Your task to perform on an android device: Clear the shopping cart on costco. Add "logitech g502" to the cart on costco Image 0: 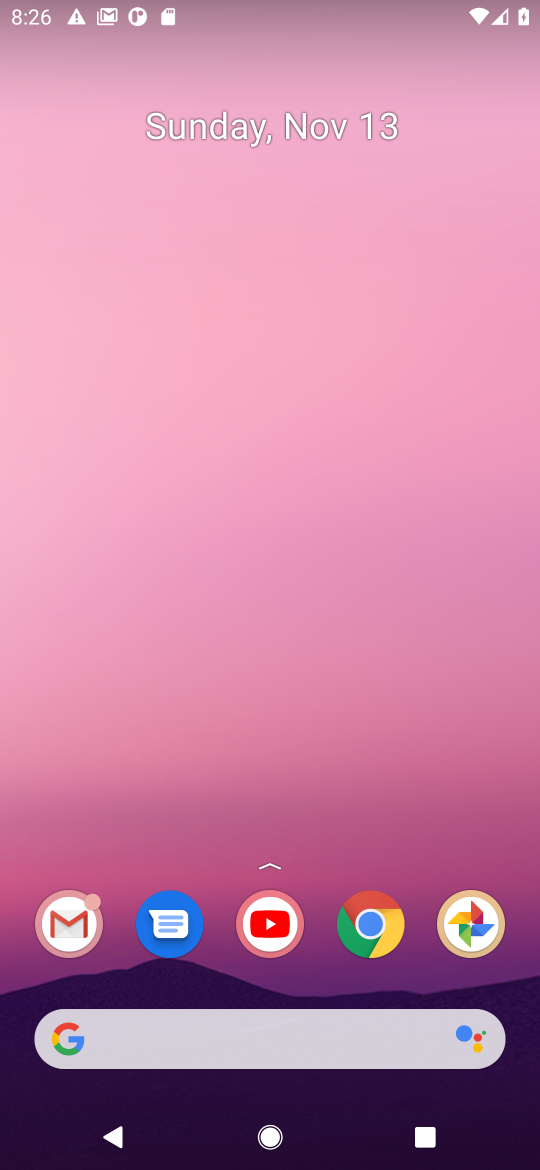
Step 0: click (366, 928)
Your task to perform on an android device: Clear the shopping cart on costco. Add "logitech g502" to the cart on costco Image 1: 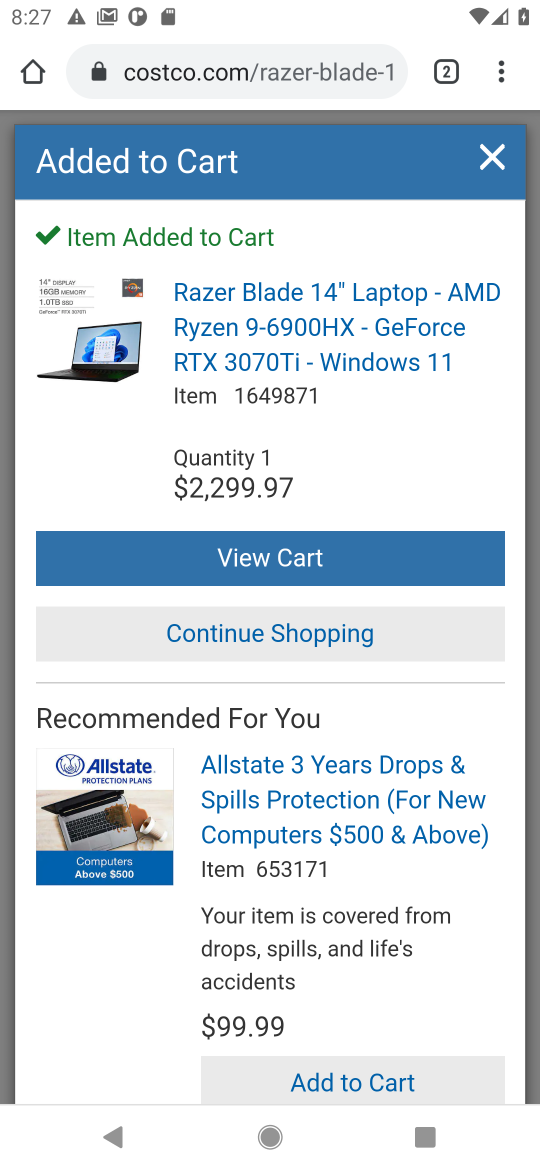
Step 1: click (492, 163)
Your task to perform on an android device: Clear the shopping cart on costco. Add "logitech g502" to the cart on costco Image 2: 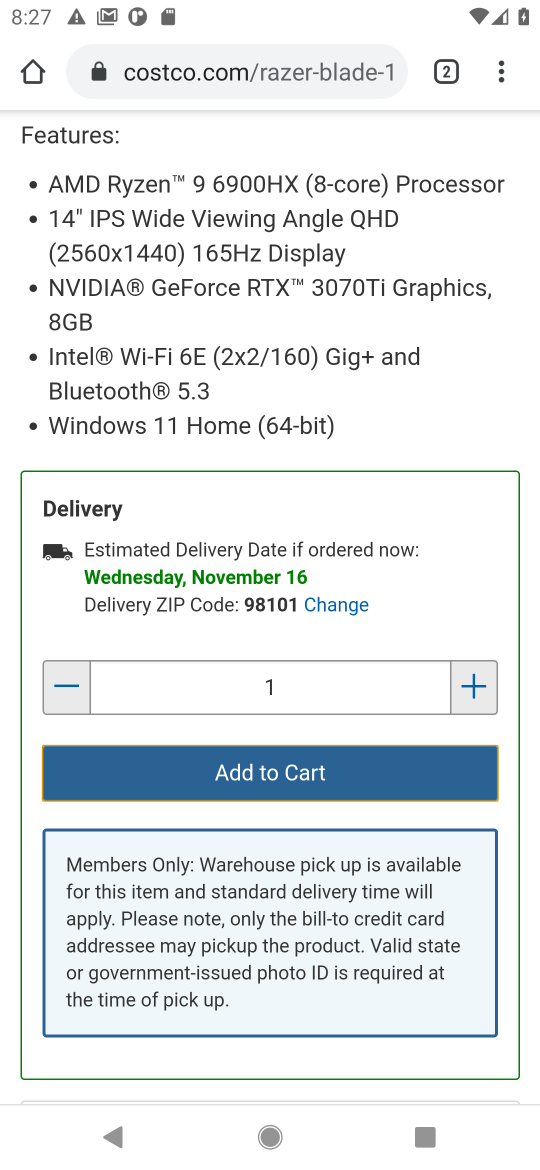
Step 2: drag from (201, 562) to (226, 1012)
Your task to perform on an android device: Clear the shopping cart on costco. Add "logitech g502" to the cart on costco Image 3: 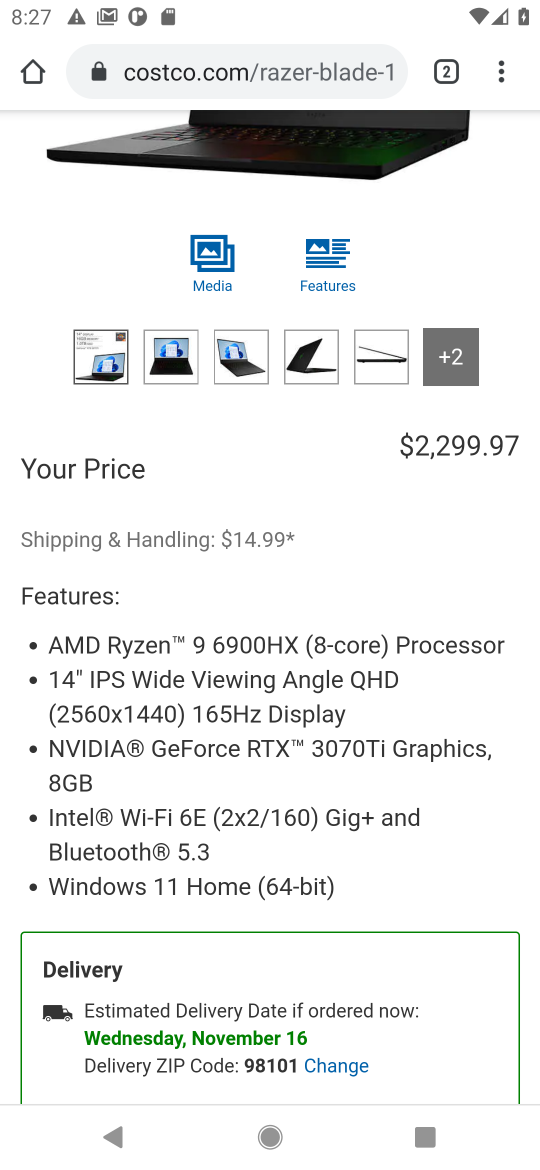
Step 3: drag from (250, 525) to (266, 1058)
Your task to perform on an android device: Clear the shopping cart on costco. Add "logitech g502" to the cart on costco Image 4: 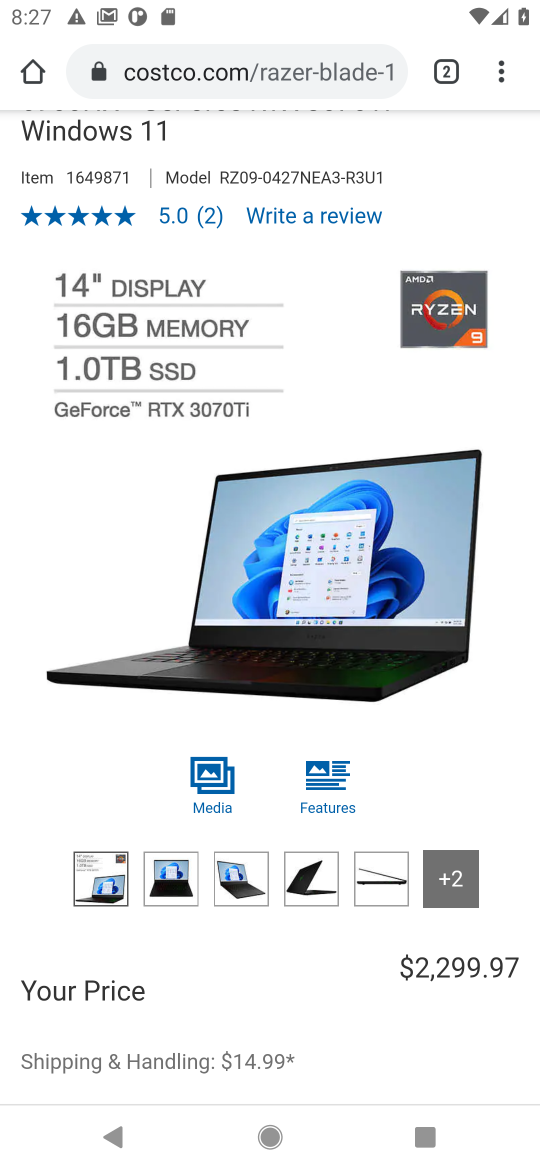
Step 4: drag from (298, 417) to (285, 926)
Your task to perform on an android device: Clear the shopping cart on costco. Add "logitech g502" to the cart on costco Image 5: 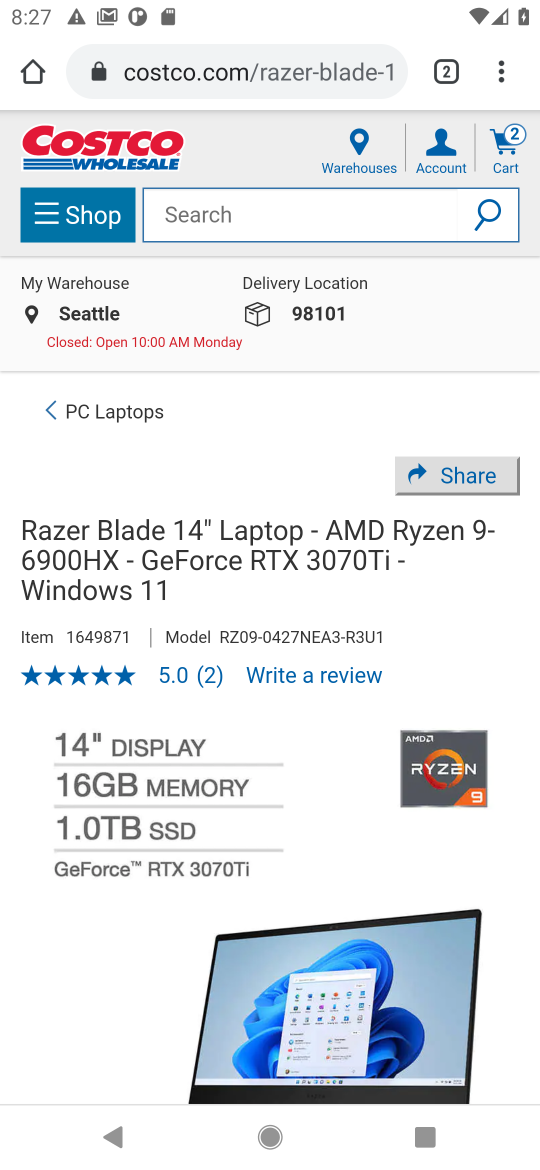
Step 5: click (498, 145)
Your task to perform on an android device: Clear the shopping cart on costco. Add "logitech g502" to the cart on costco Image 6: 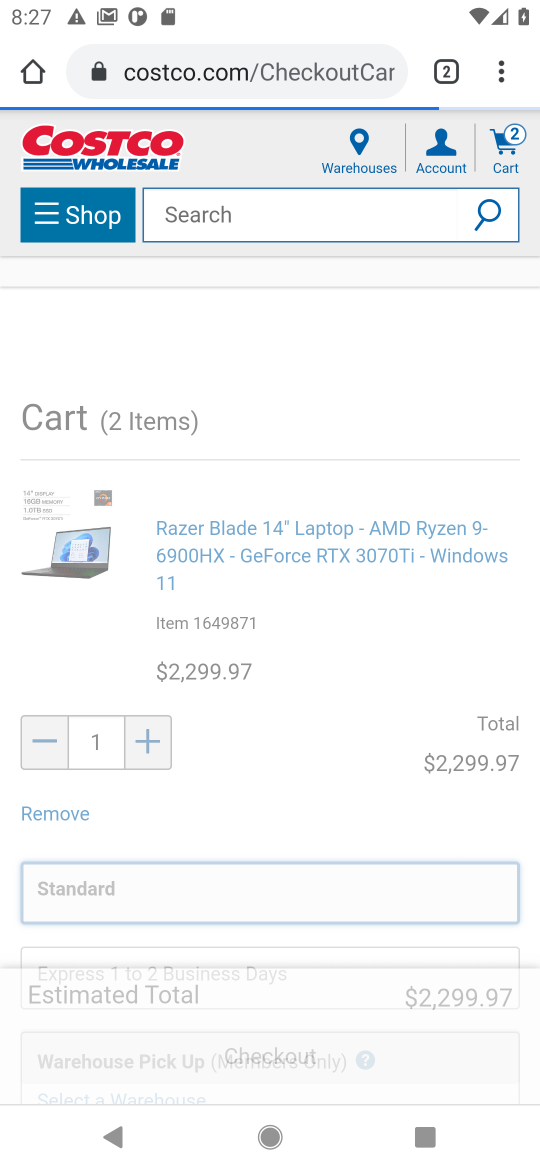
Step 6: drag from (192, 798) to (218, 240)
Your task to perform on an android device: Clear the shopping cart on costco. Add "logitech g502" to the cart on costco Image 7: 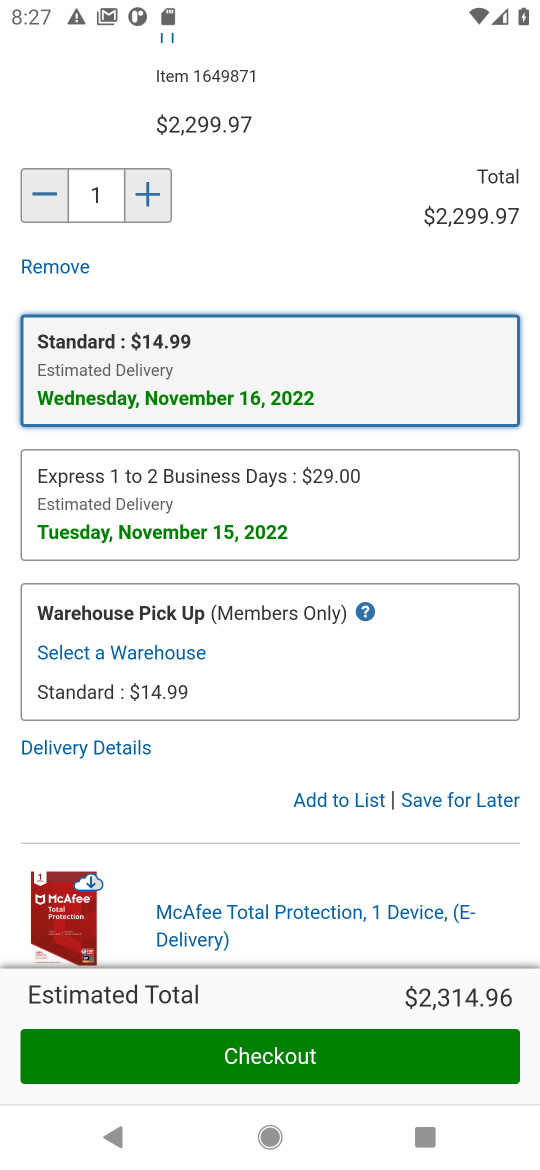
Step 7: click (457, 799)
Your task to perform on an android device: Clear the shopping cart on costco. Add "logitech g502" to the cart on costco Image 8: 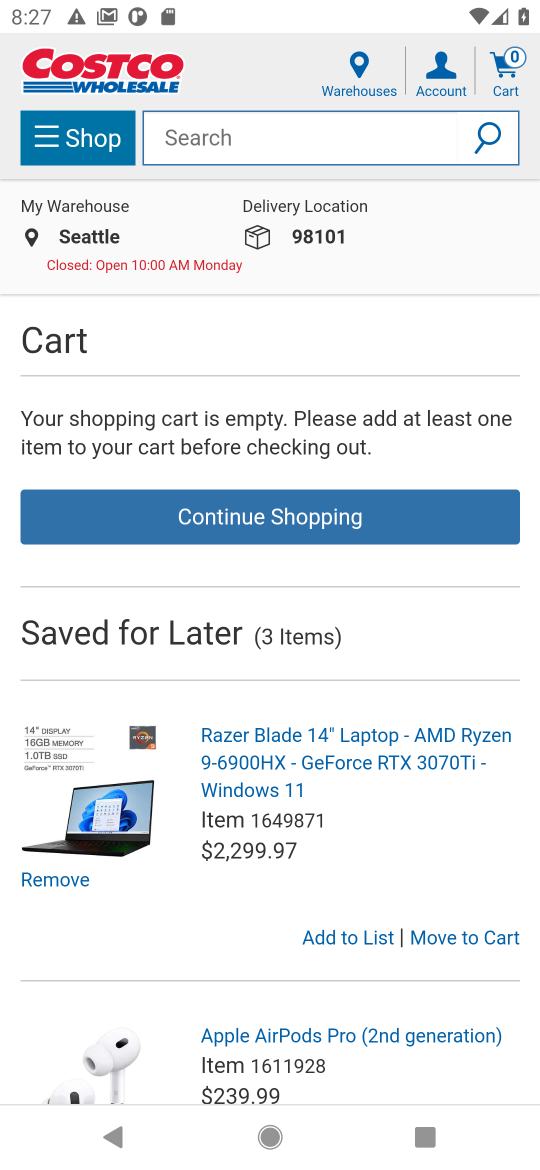
Step 8: click (217, 147)
Your task to perform on an android device: Clear the shopping cart on costco. Add "logitech g502" to the cart on costco Image 9: 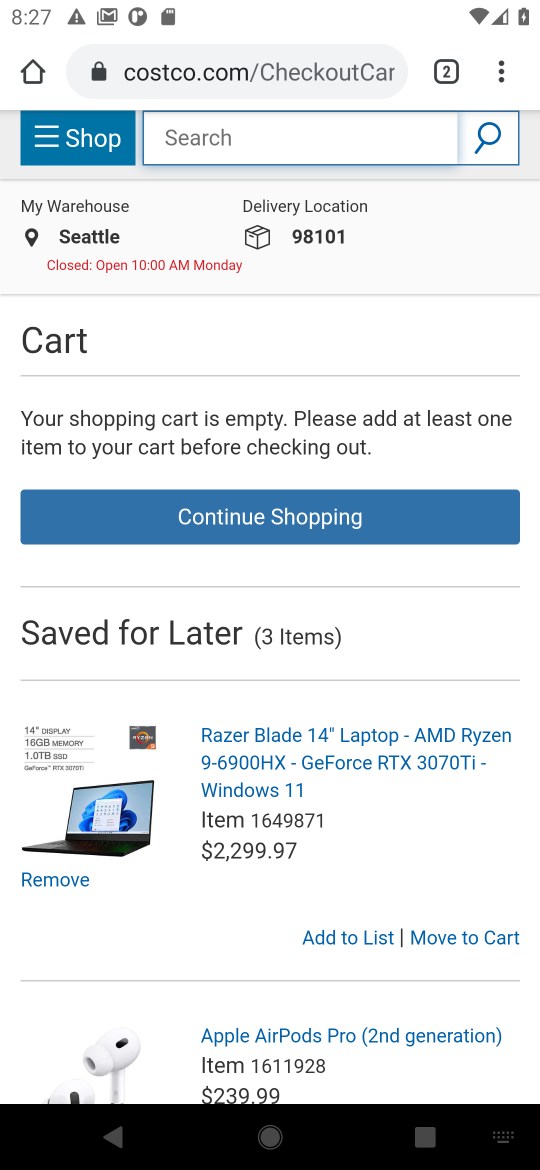
Step 9: type "logitech g502"
Your task to perform on an android device: Clear the shopping cart on costco. Add "logitech g502" to the cart on costco Image 10: 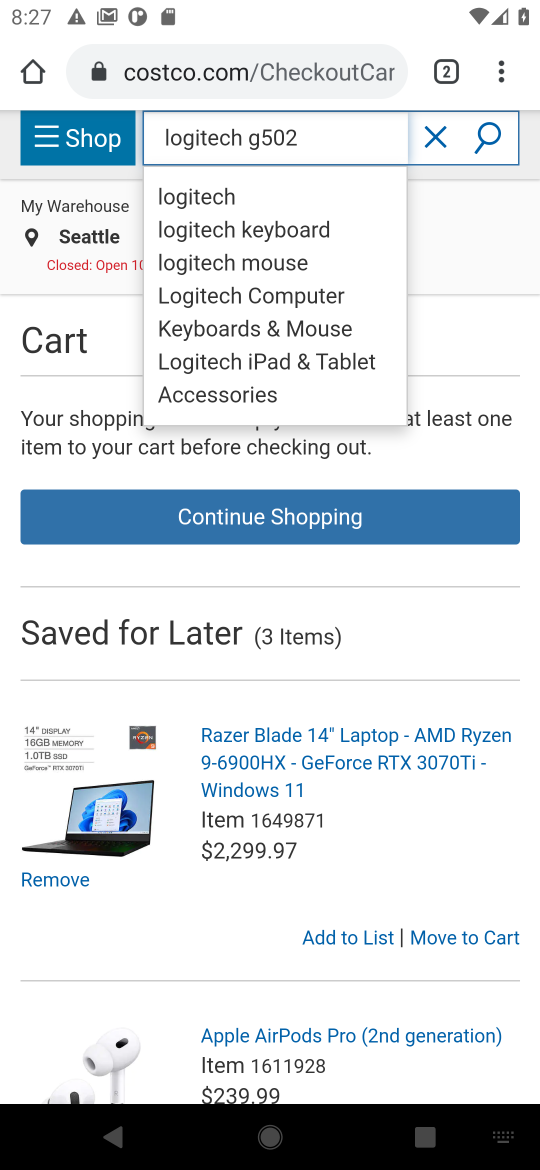
Step 10: click (483, 138)
Your task to perform on an android device: Clear the shopping cart on costco. Add "logitech g502" to the cart on costco Image 11: 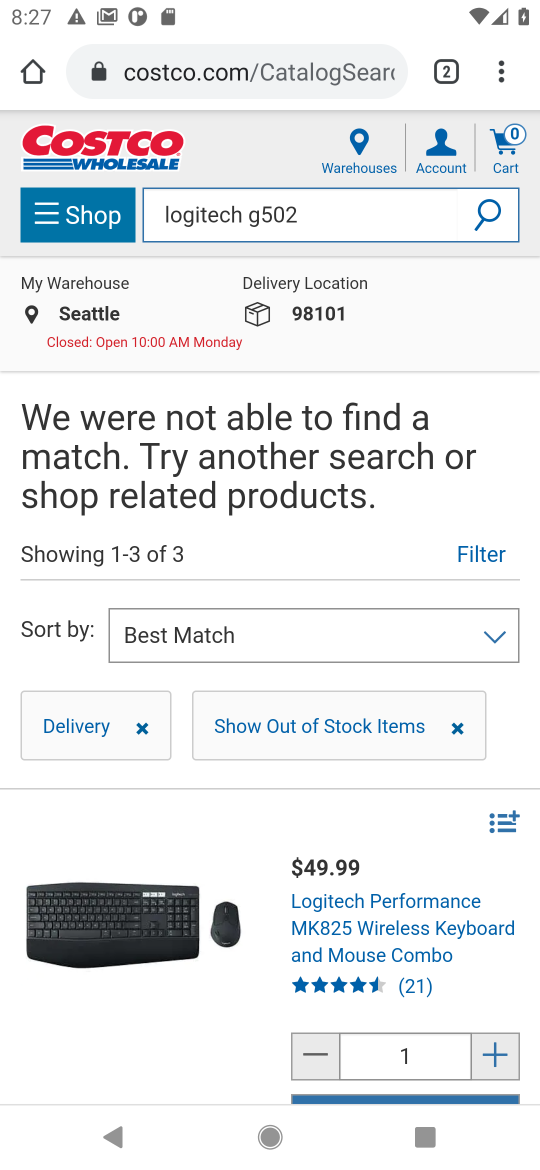
Step 11: task complete